Your task to perform on an android device: see sites visited before in the chrome app Image 0: 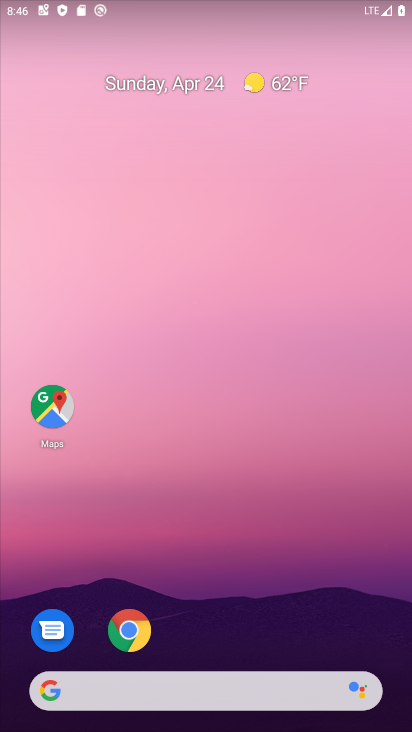
Step 0: drag from (231, 511) to (192, 26)
Your task to perform on an android device: see sites visited before in the chrome app Image 1: 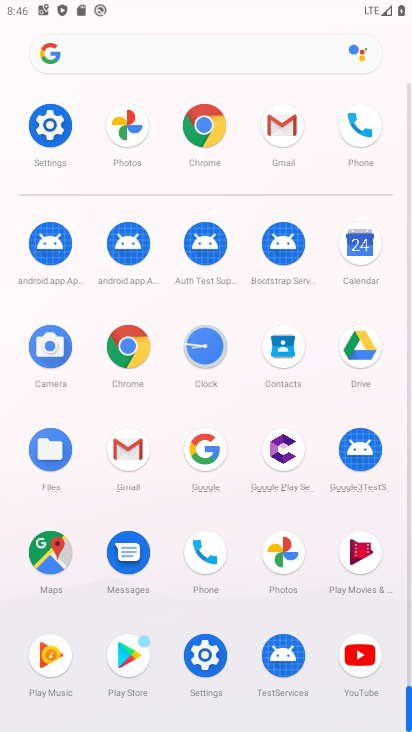
Step 1: drag from (0, 571) to (6, 256)
Your task to perform on an android device: see sites visited before in the chrome app Image 2: 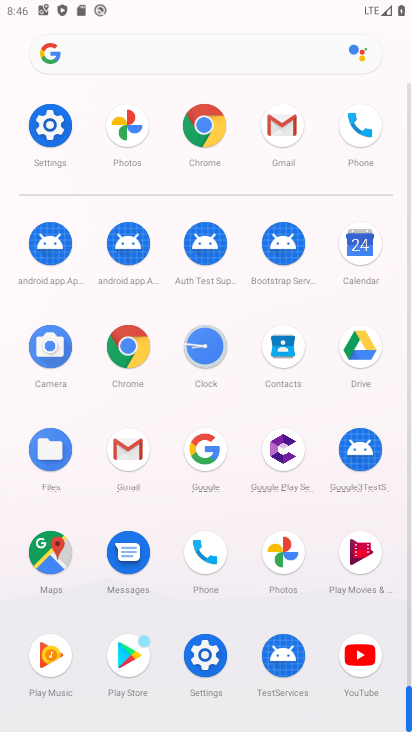
Step 2: click (130, 343)
Your task to perform on an android device: see sites visited before in the chrome app Image 3: 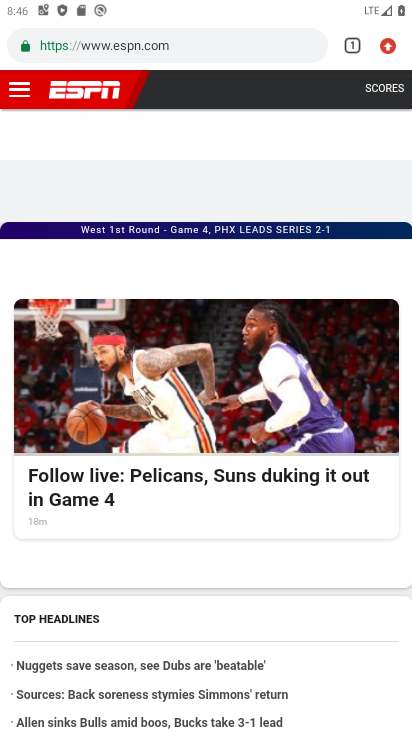
Step 3: task complete